Your task to perform on an android device: Add logitech g903 to the cart on ebay.com Image 0: 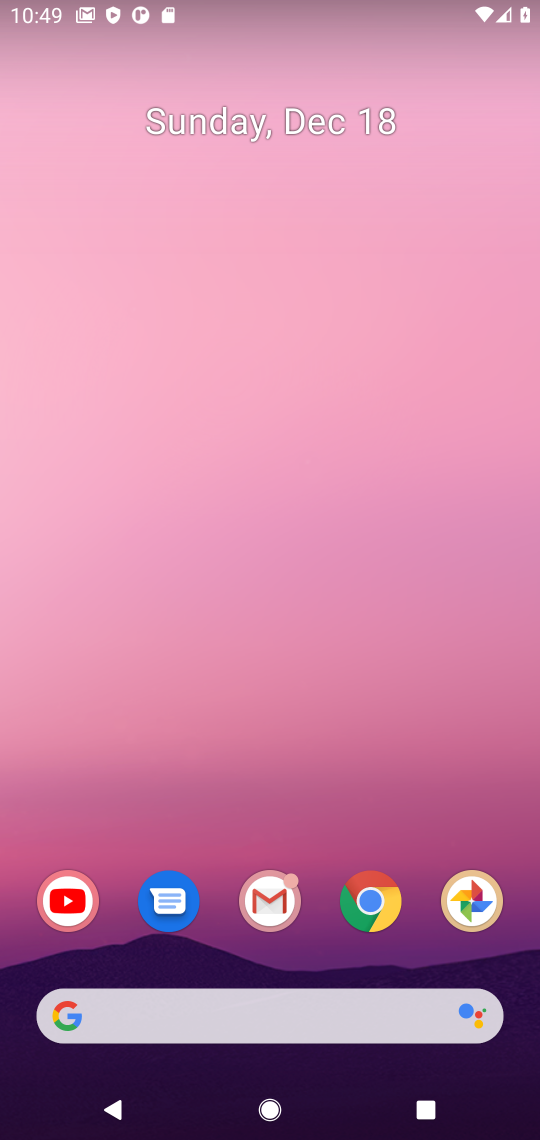
Step 0: click (381, 933)
Your task to perform on an android device: Add logitech g903 to the cart on ebay.com Image 1: 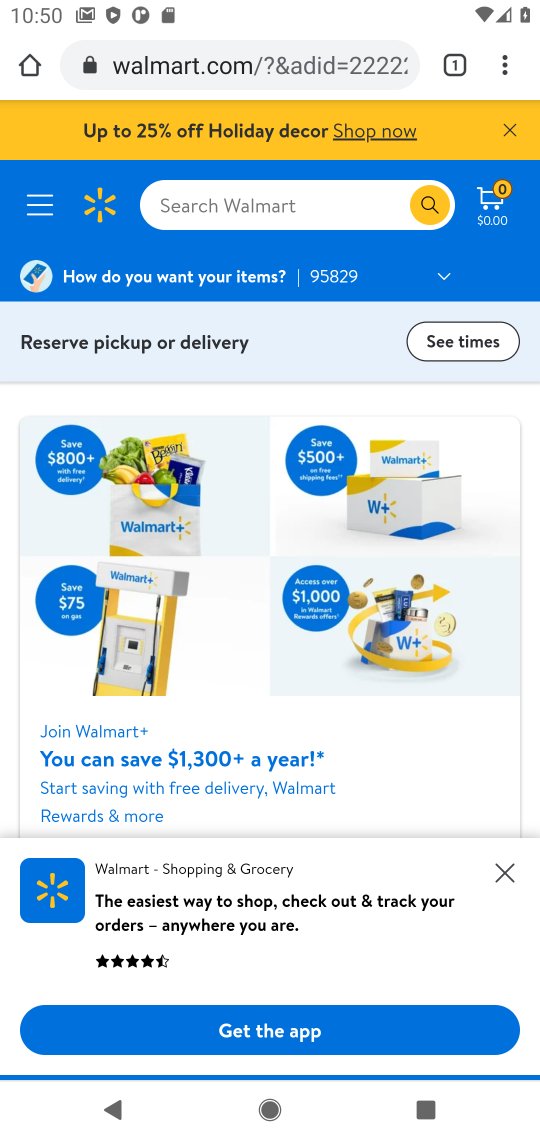
Step 1: click (218, 66)
Your task to perform on an android device: Add logitech g903 to the cart on ebay.com Image 2: 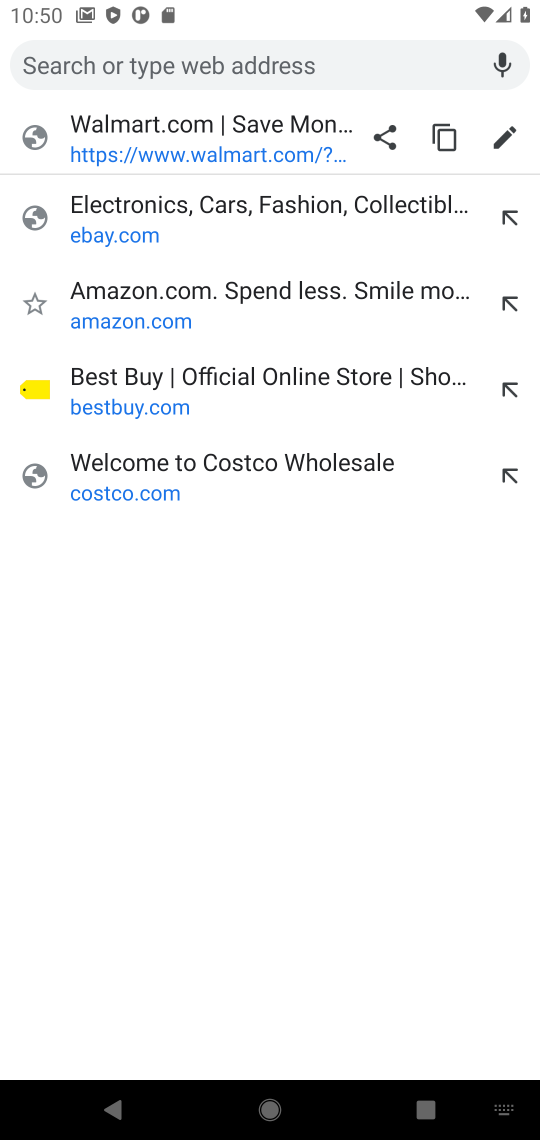
Step 2: type "ebay"
Your task to perform on an android device: Add logitech g903 to the cart on ebay.com Image 3: 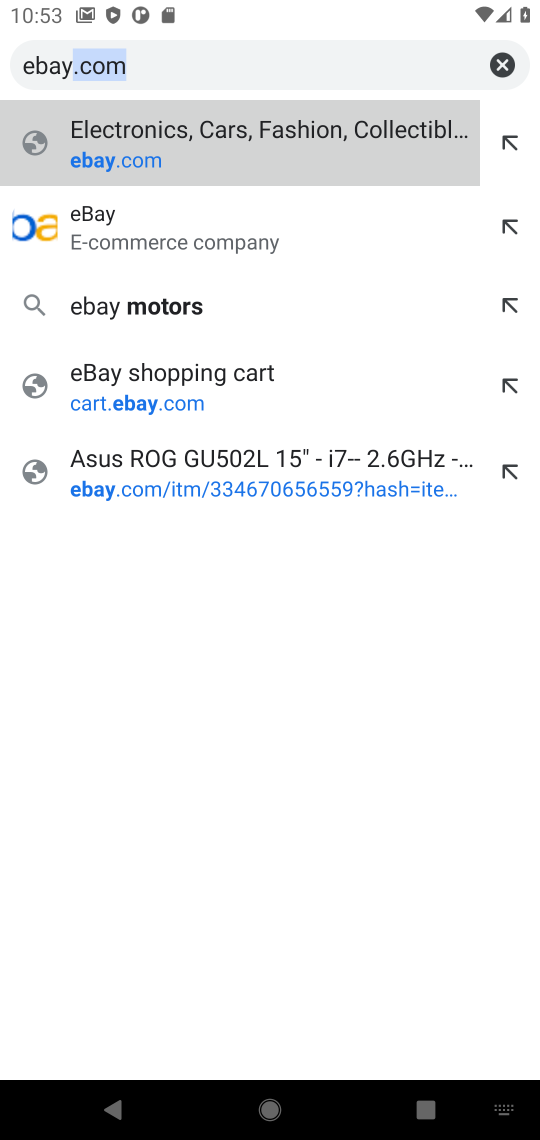
Step 3: click (190, 141)
Your task to perform on an android device: Add logitech g903 to the cart on ebay.com Image 4: 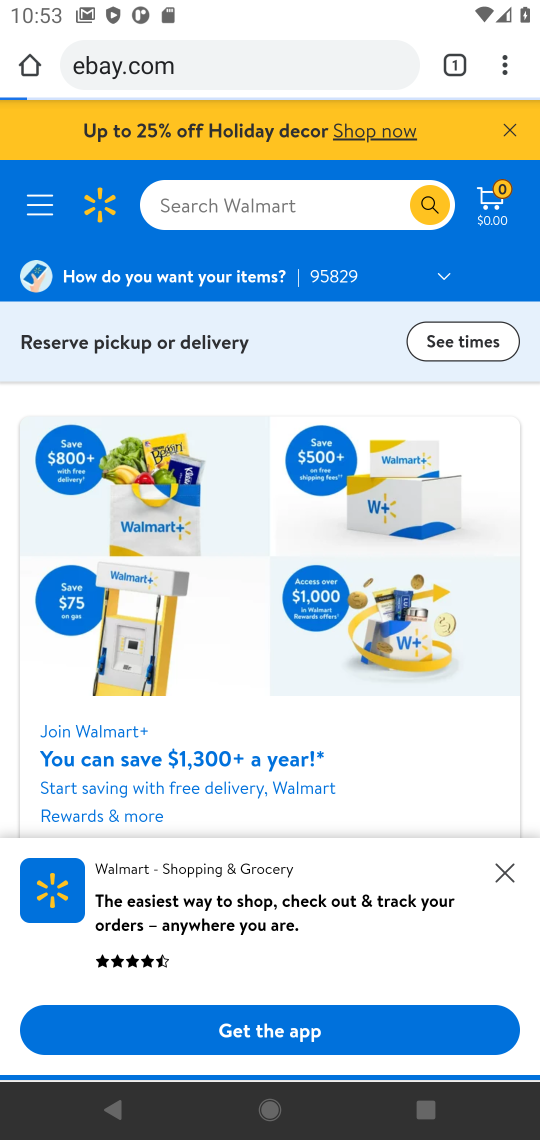
Step 4: task complete